Your task to perform on an android device: Toggle the flashlight Image 0: 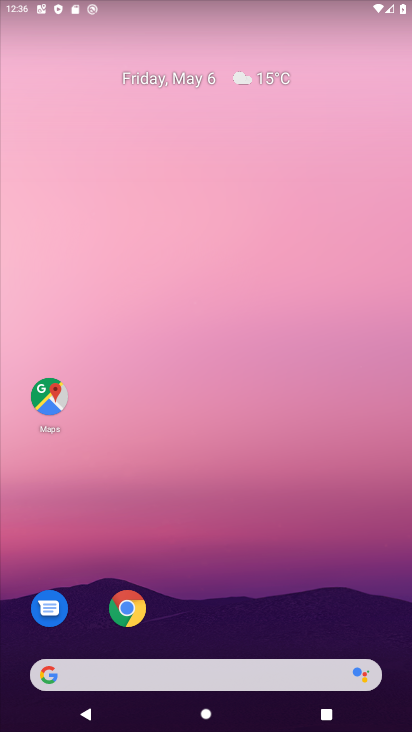
Step 0: drag from (194, 652) to (224, 8)
Your task to perform on an android device: Toggle the flashlight Image 1: 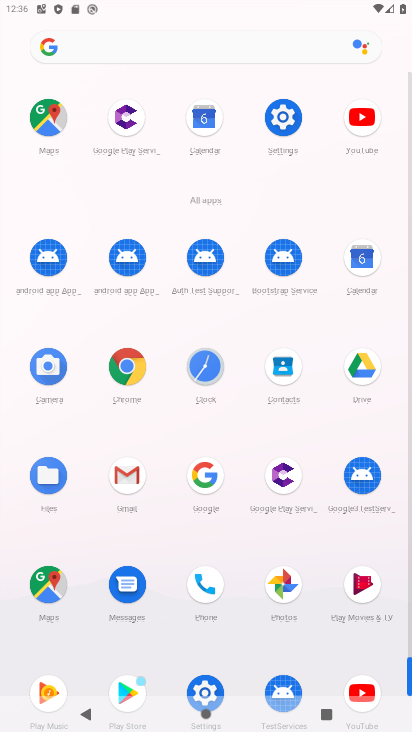
Step 1: click (280, 129)
Your task to perform on an android device: Toggle the flashlight Image 2: 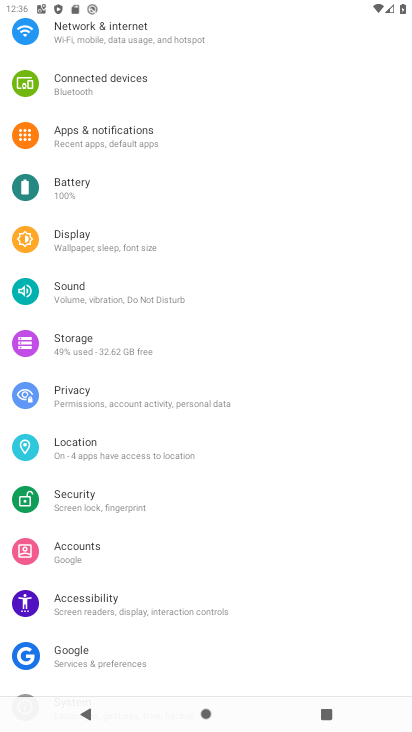
Step 2: drag from (225, 581) to (212, 270)
Your task to perform on an android device: Toggle the flashlight Image 3: 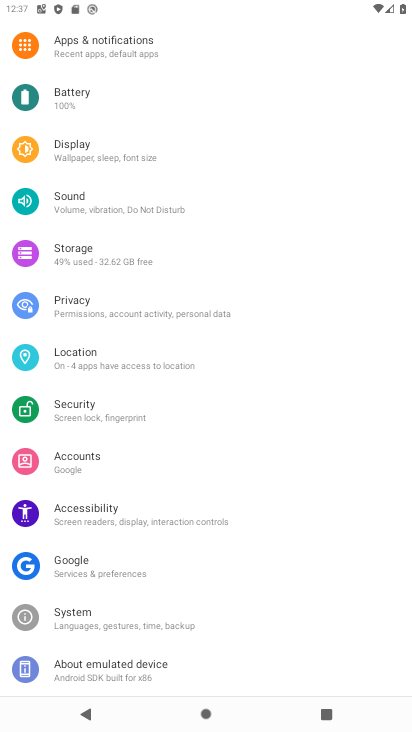
Step 3: drag from (234, 122) to (252, 669)
Your task to perform on an android device: Toggle the flashlight Image 4: 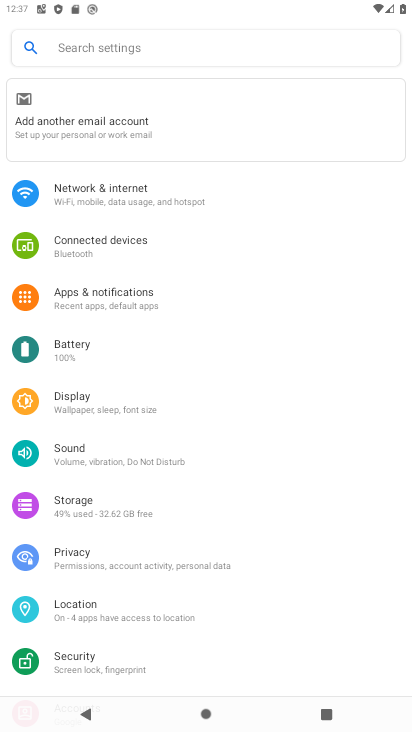
Step 4: click (226, 51)
Your task to perform on an android device: Toggle the flashlight Image 5: 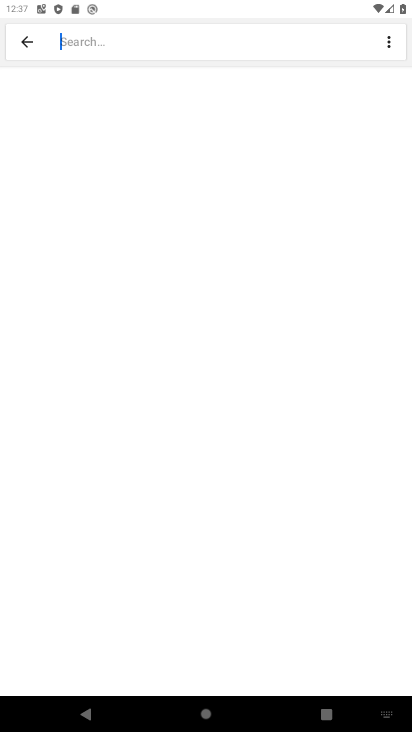
Step 5: type "flashlight"
Your task to perform on an android device: Toggle the flashlight Image 6: 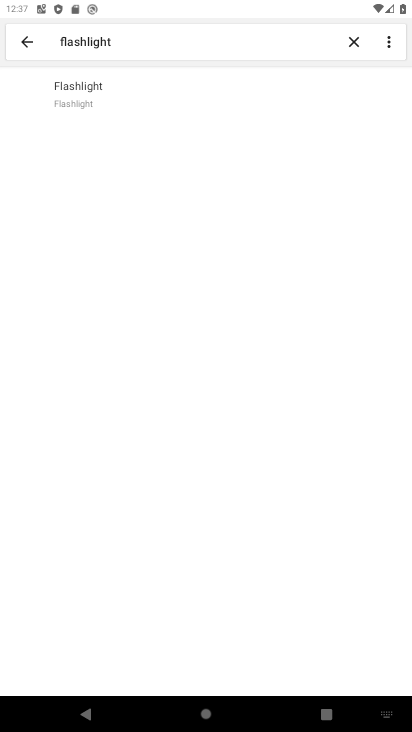
Step 6: drag from (203, 546) to (201, 145)
Your task to perform on an android device: Toggle the flashlight Image 7: 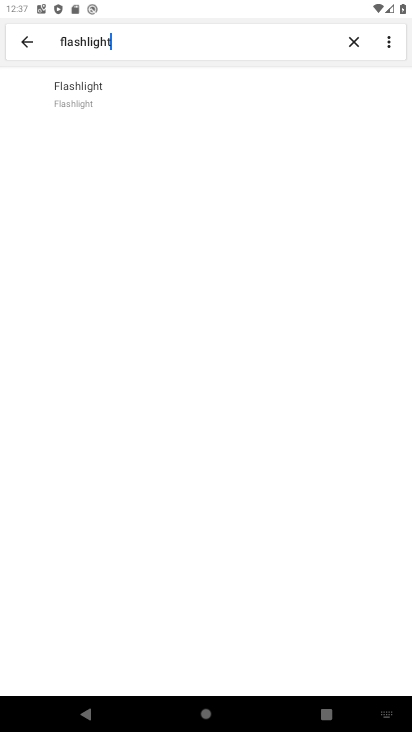
Step 7: click (128, 90)
Your task to perform on an android device: Toggle the flashlight Image 8: 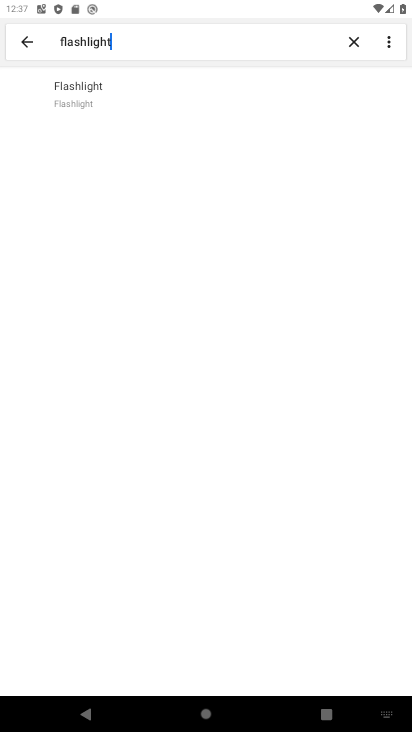
Step 8: task complete